Your task to perform on an android device: allow cookies in the chrome app Image 0: 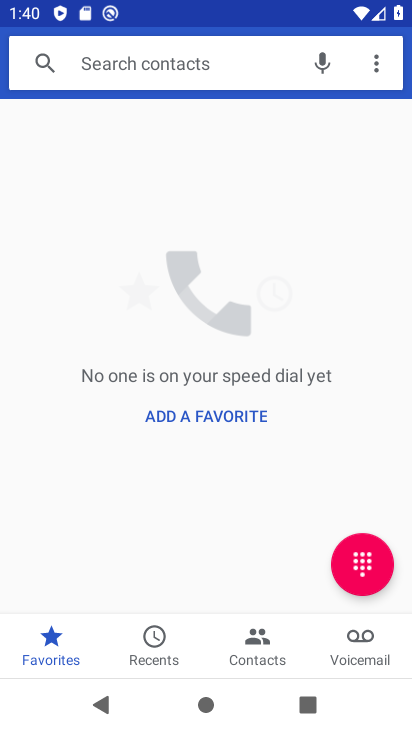
Step 0: press home button
Your task to perform on an android device: allow cookies in the chrome app Image 1: 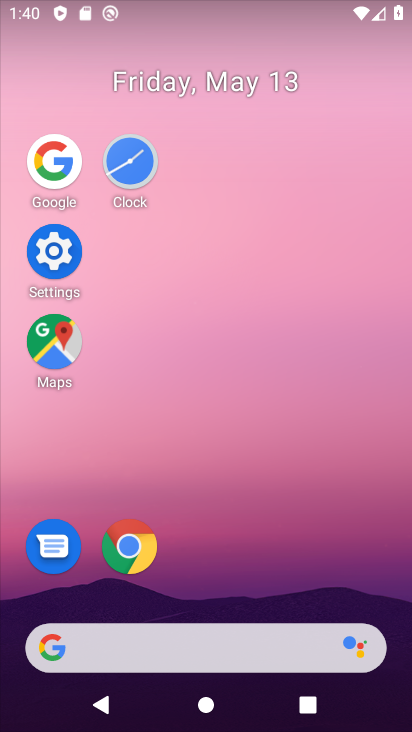
Step 1: click (129, 555)
Your task to perform on an android device: allow cookies in the chrome app Image 2: 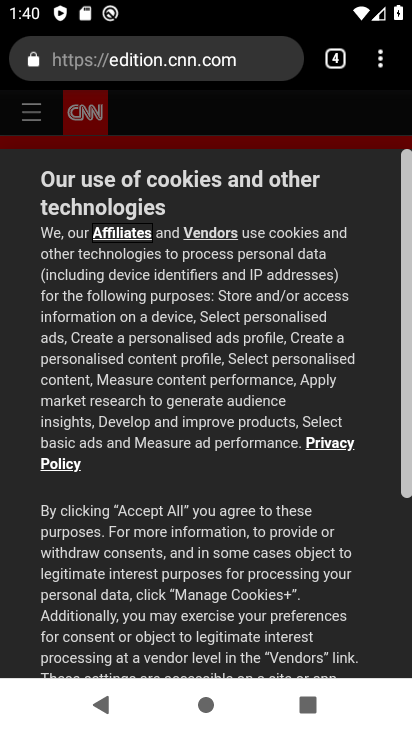
Step 2: click (377, 61)
Your task to perform on an android device: allow cookies in the chrome app Image 3: 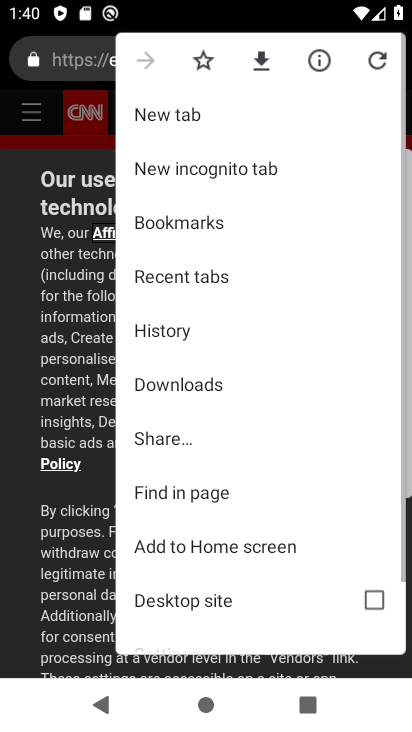
Step 3: drag from (229, 555) to (289, 222)
Your task to perform on an android device: allow cookies in the chrome app Image 4: 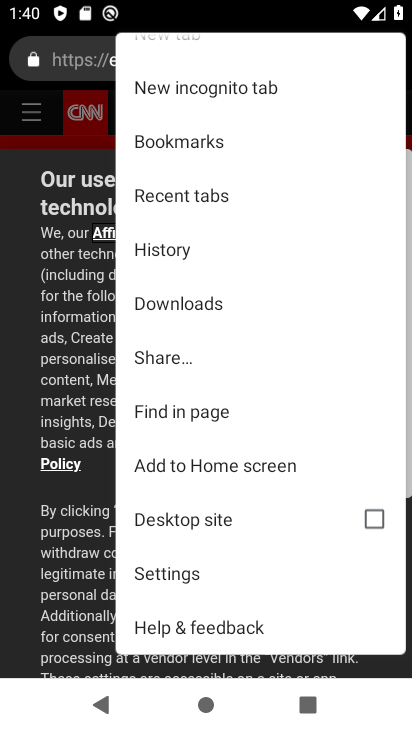
Step 4: click (242, 581)
Your task to perform on an android device: allow cookies in the chrome app Image 5: 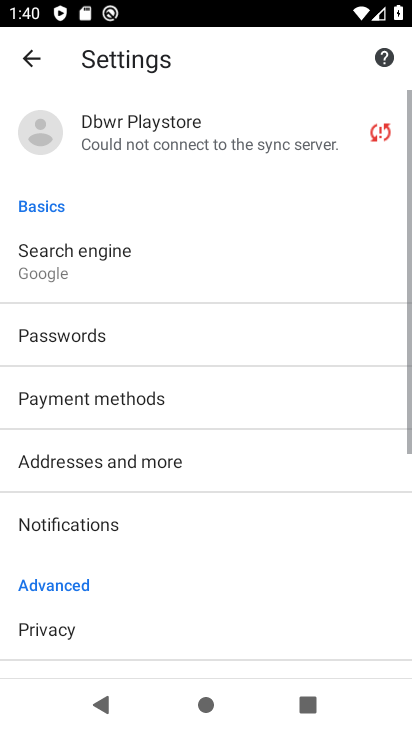
Step 5: drag from (236, 559) to (261, 246)
Your task to perform on an android device: allow cookies in the chrome app Image 6: 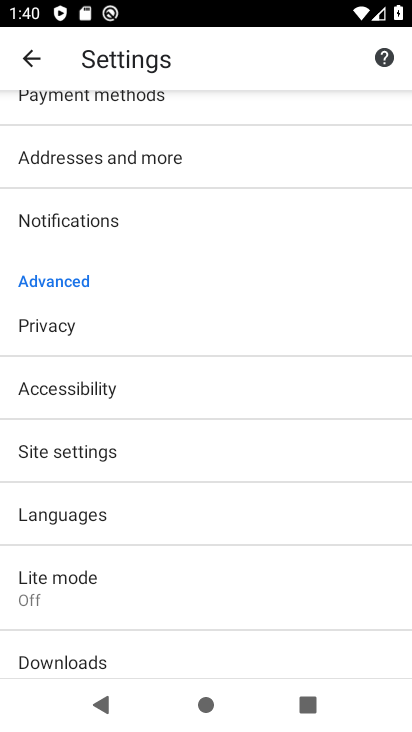
Step 6: click (224, 469)
Your task to perform on an android device: allow cookies in the chrome app Image 7: 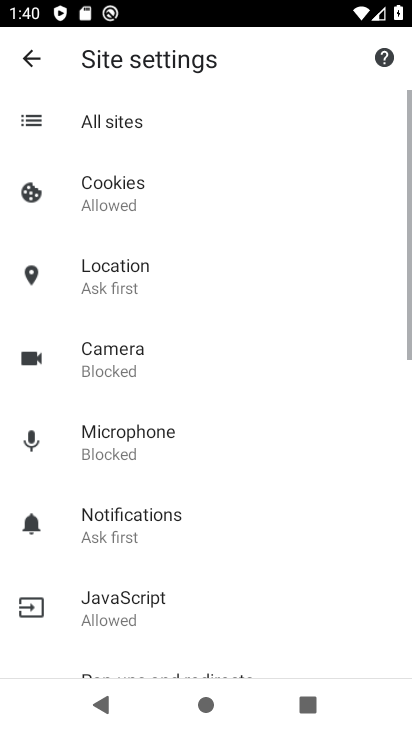
Step 7: click (280, 190)
Your task to perform on an android device: allow cookies in the chrome app Image 8: 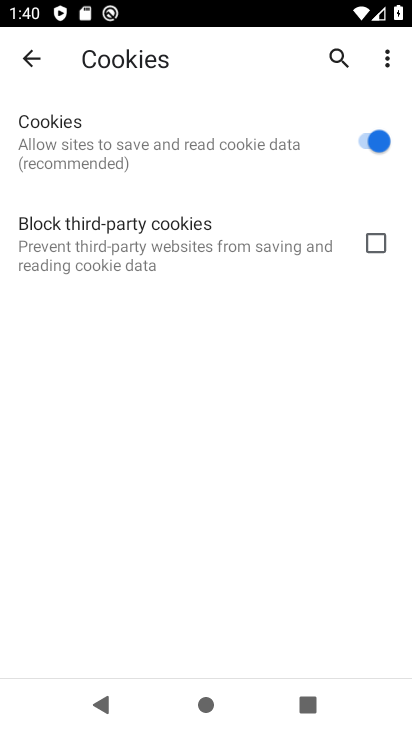
Step 8: task complete